Your task to perform on an android device: Go to network settings Image 0: 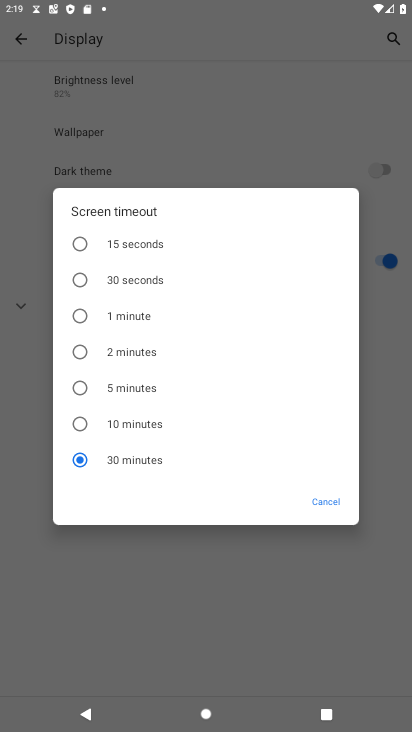
Step 0: press home button
Your task to perform on an android device: Go to network settings Image 1: 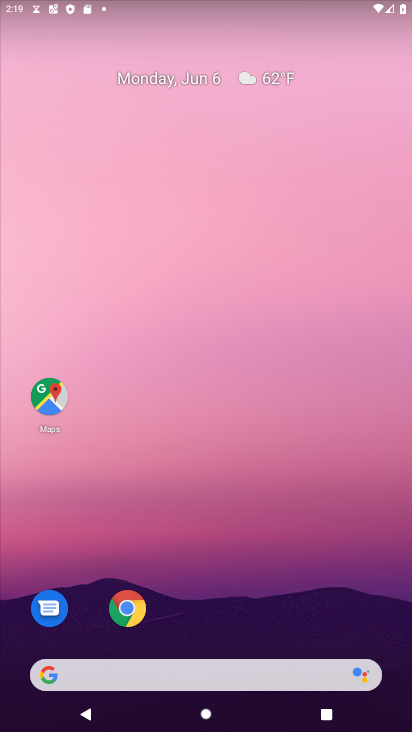
Step 1: drag from (286, 597) to (266, 0)
Your task to perform on an android device: Go to network settings Image 2: 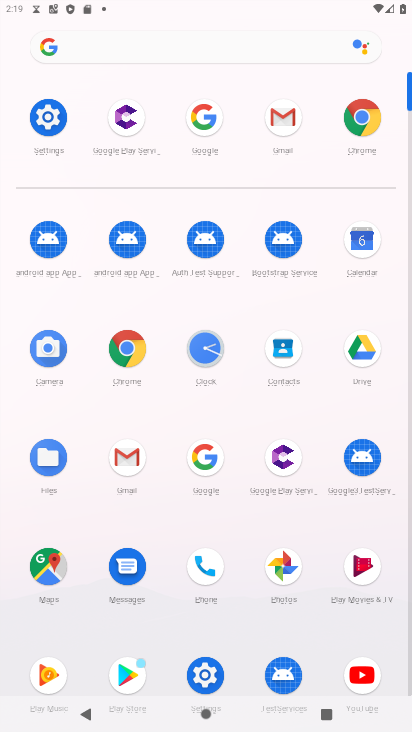
Step 2: click (49, 121)
Your task to perform on an android device: Go to network settings Image 3: 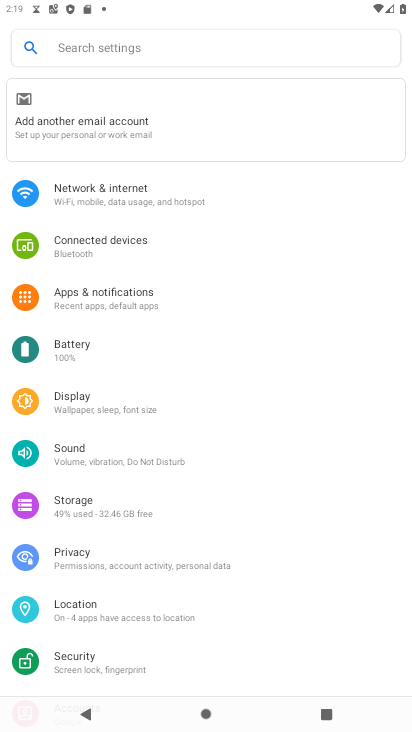
Step 3: click (113, 191)
Your task to perform on an android device: Go to network settings Image 4: 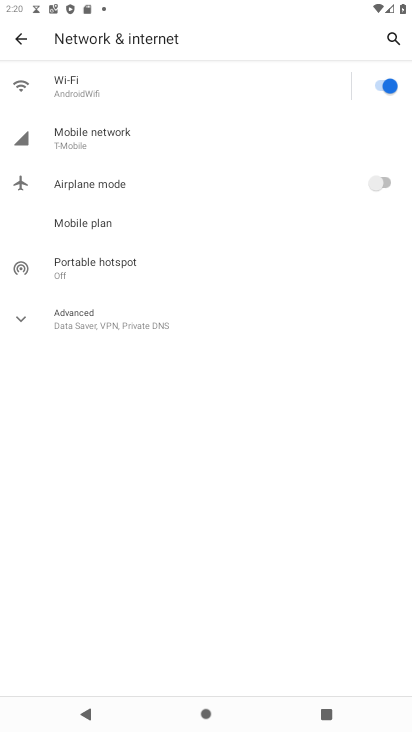
Step 4: task complete